Your task to perform on an android device: Play the last video I watched on Youtube Image 0: 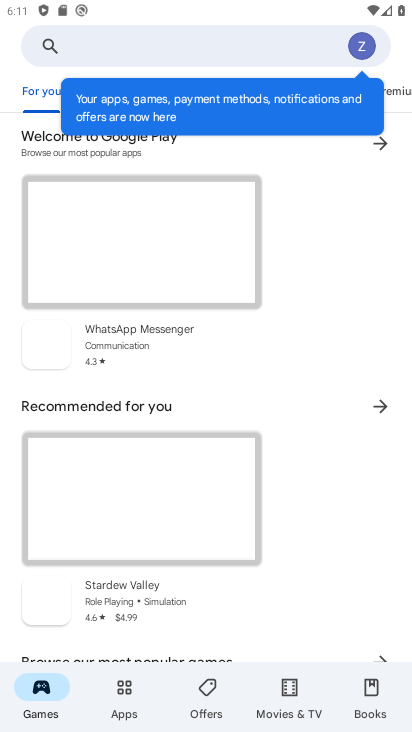
Step 0: press home button
Your task to perform on an android device: Play the last video I watched on Youtube Image 1: 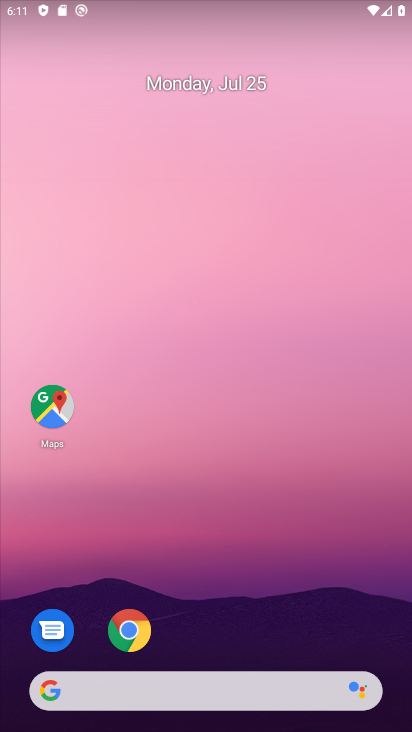
Step 1: drag from (203, 697) to (161, 67)
Your task to perform on an android device: Play the last video I watched on Youtube Image 2: 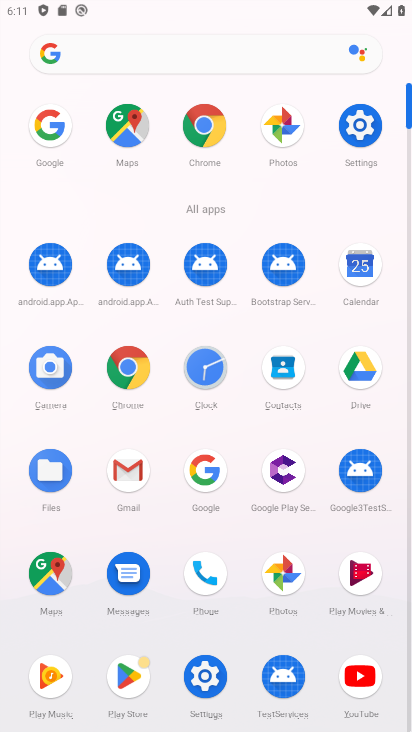
Step 2: click (360, 674)
Your task to perform on an android device: Play the last video I watched on Youtube Image 3: 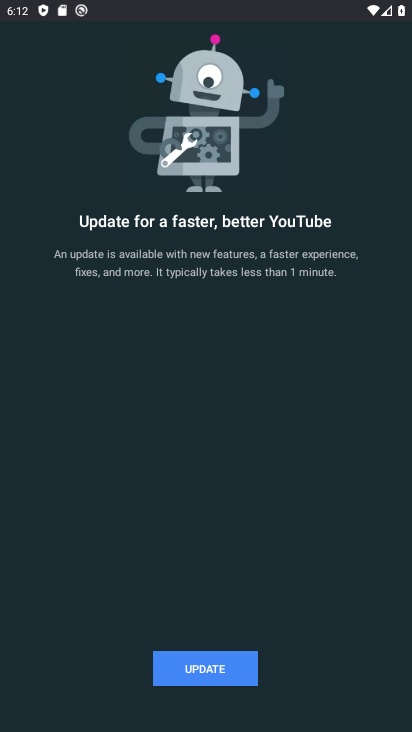
Step 3: click (199, 667)
Your task to perform on an android device: Play the last video I watched on Youtube Image 4: 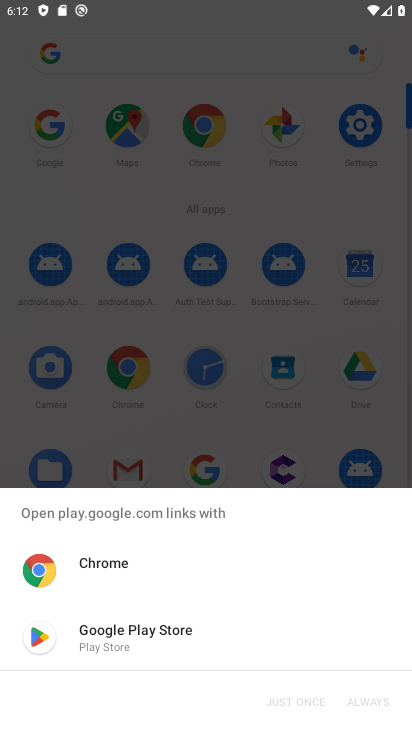
Step 4: click (155, 634)
Your task to perform on an android device: Play the last video I watched on Youtube Image 5: 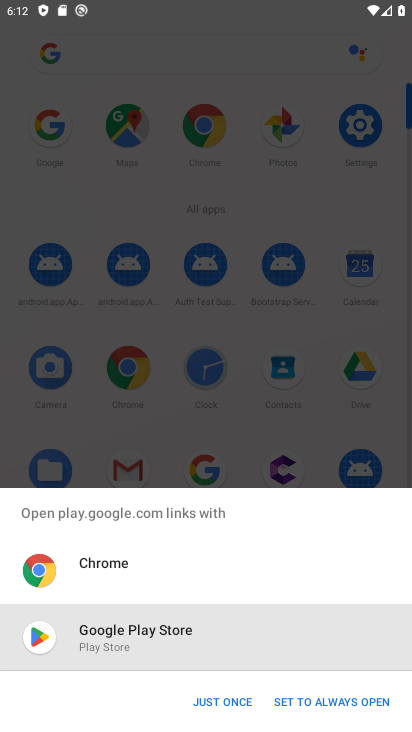
Step 5: click (215, 699)
Your task to perform on an android device: Play the last video I watched on Youtube Image 6: 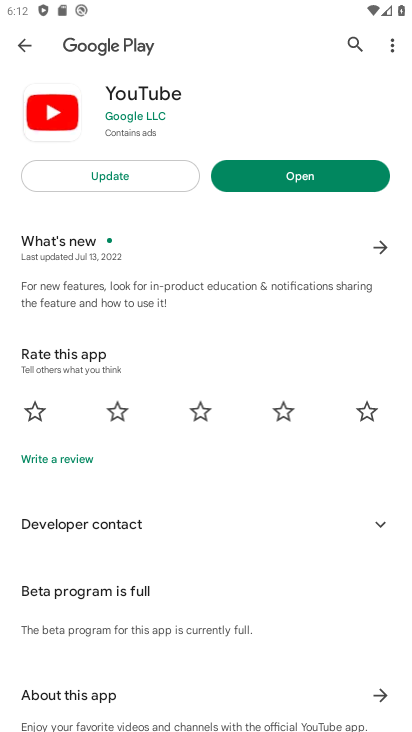
Step 6: click (113, 175)
Your task to perform on an android device: Play the last video I watched on Youtube Image 7: 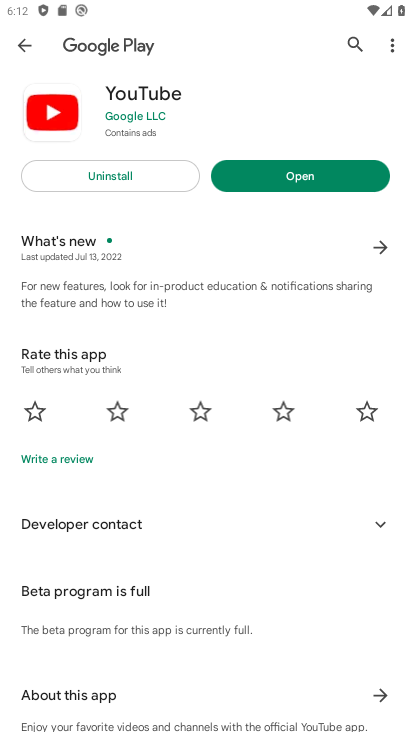
Step 7: click (276, 179)
Your task to perform on an android device: Play the last video I watched on Youtube Image 8: 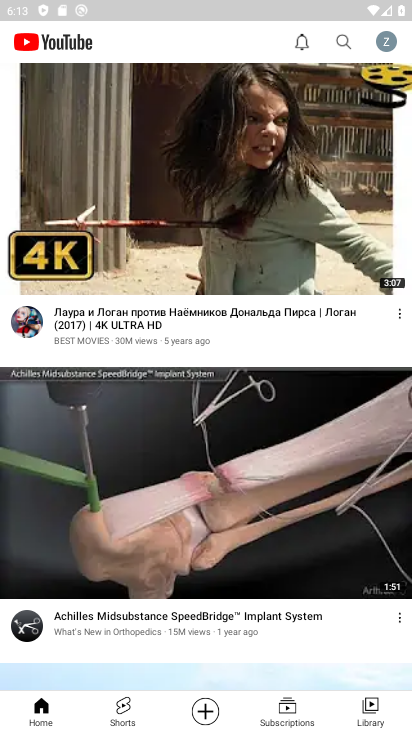
Step 8: click (370, 705)
Your task to perform on an android device: Play the last video I watched on Youtube Image 9: 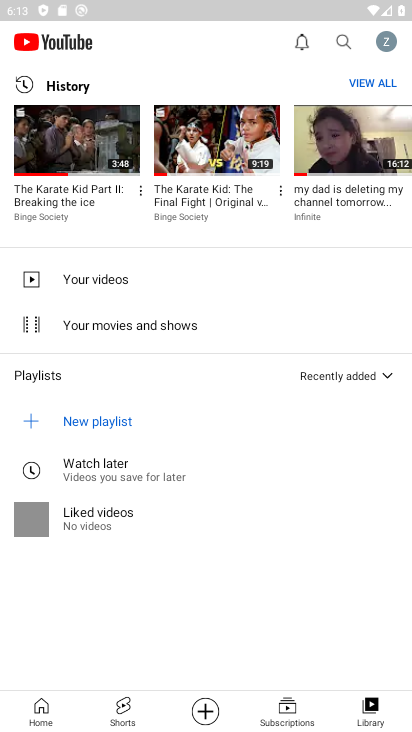
Step 9: click (71, 152)
Your task to perform on an android device: Play the last video I watched on Youtube Image 10: 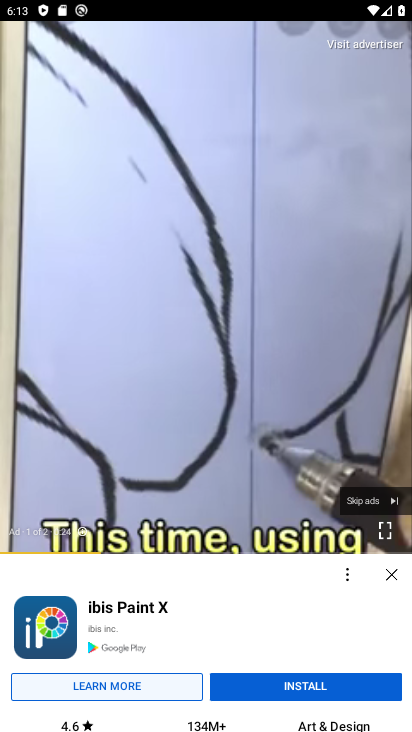
Step 10: click (375, 503)
Your task to perform on an android device: Play the last video I watched on Youtube Image 11: 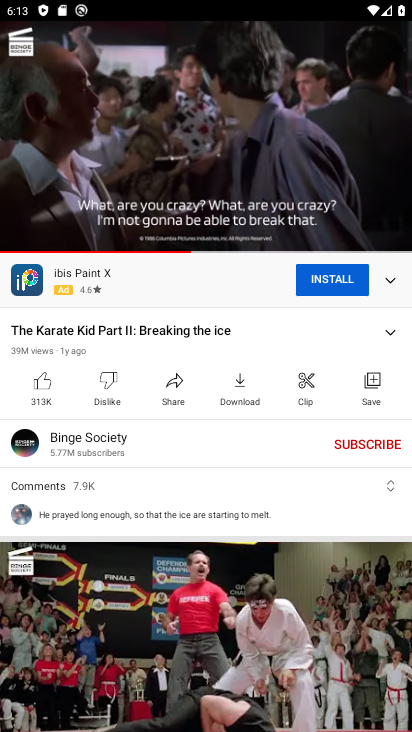
Step 11: task complete